Your task to perform on an android device: Open internet settings Image 0: 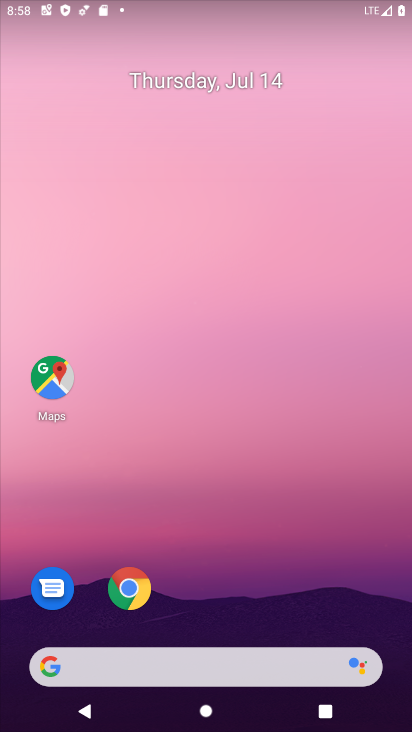
Step 0: drag from (377, 583) to (148, 30)
Your task to perform on an android device: Open internet settings Image 1: 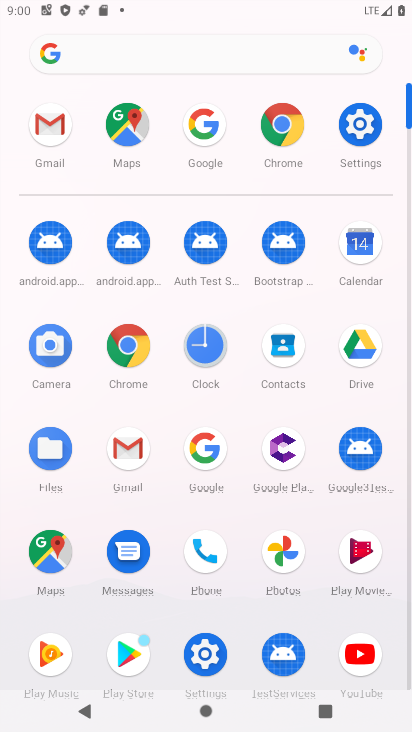
Step 1: click (195, 659)
Your task to perform on an android device: Open internet settings Image 2: 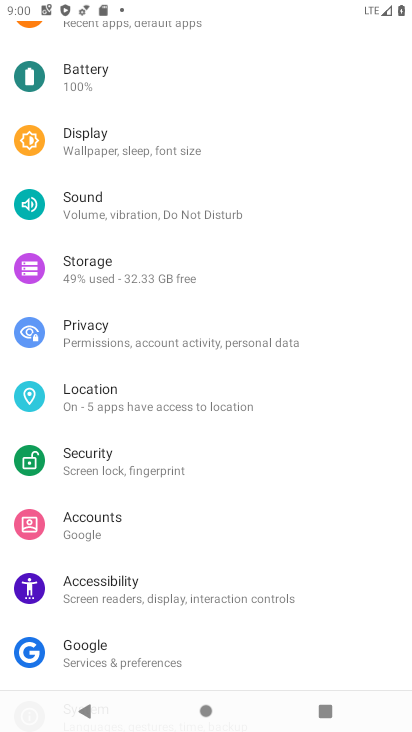
Step 2: drag from (215, 132) to (241, 667)
Your task to perform on an android device: Open internet settings Image 3: 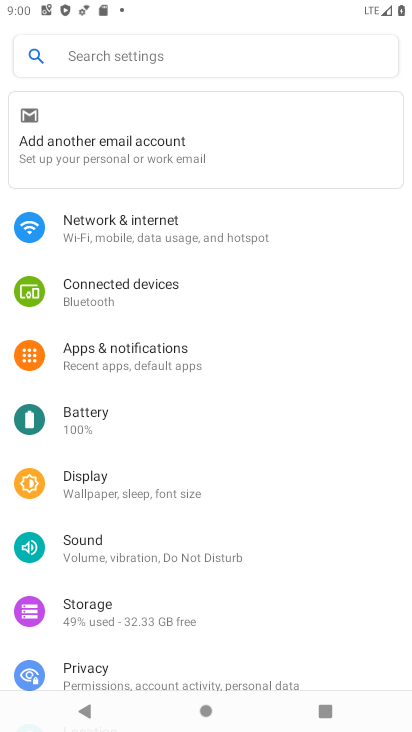
Step 3: click (155, 239)
Your task to perform on an android device: Open internet settings Image 4: 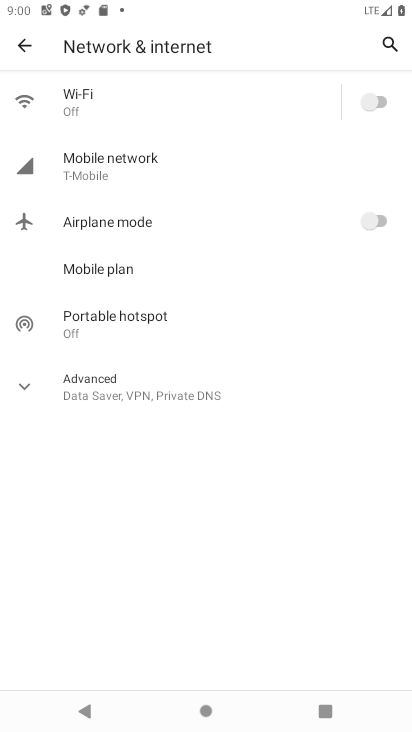
Step 4: task complete